Your task to perform on an android device: Open internet settings Image 0: 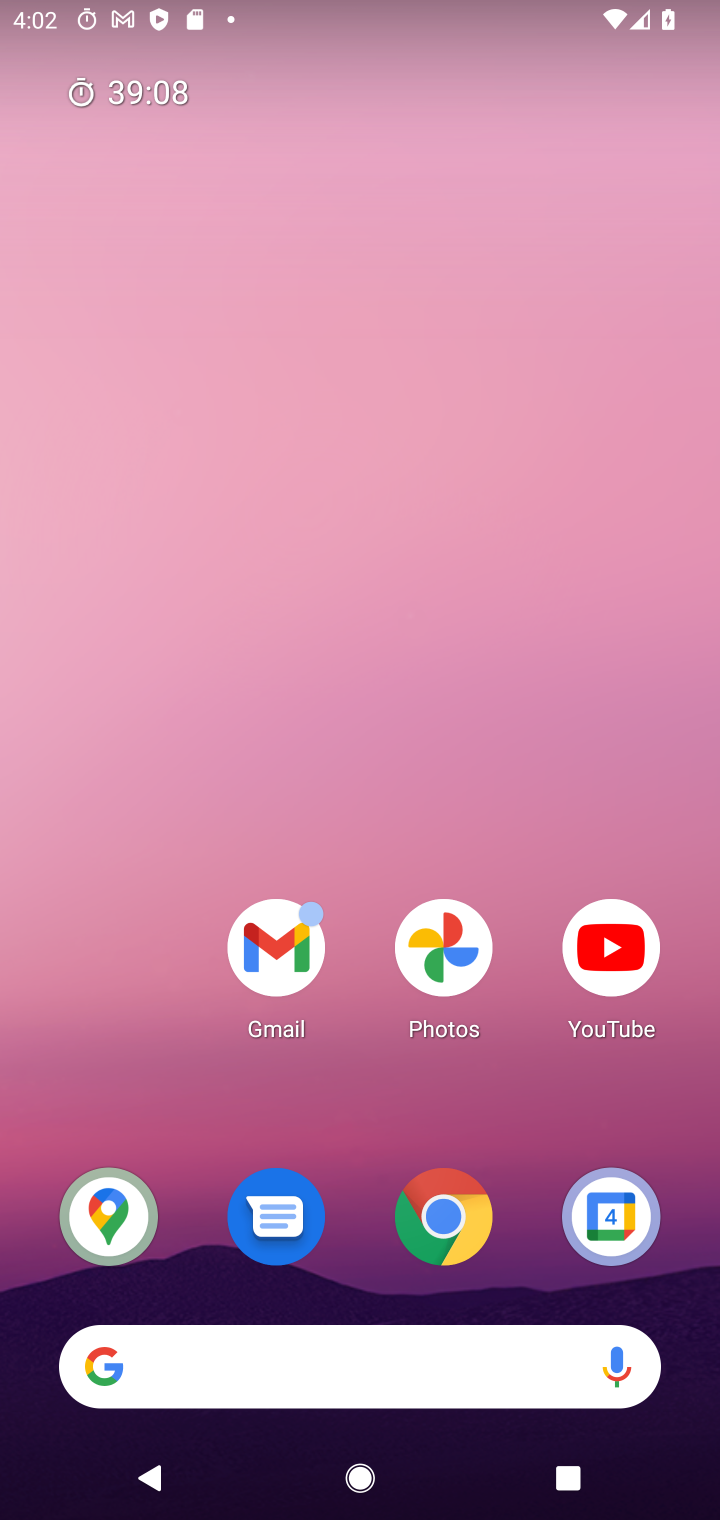
Step 0: drag from (127, 1073) to (640, 122)
Your task to perform on an android device: Open internet settings Image 1: 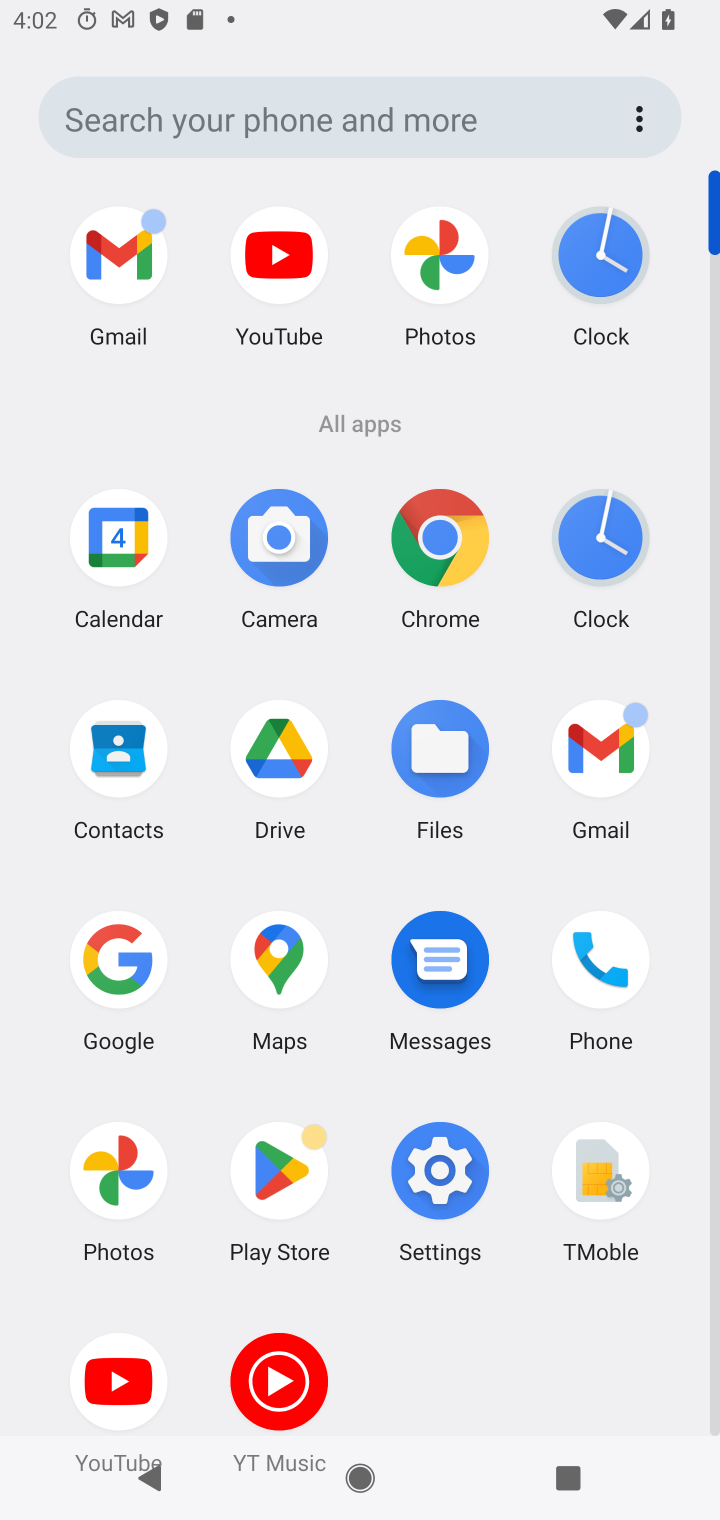
Step 1: click (432, 1161)
Your task to perform on an android device: Open internet settings Image 2: 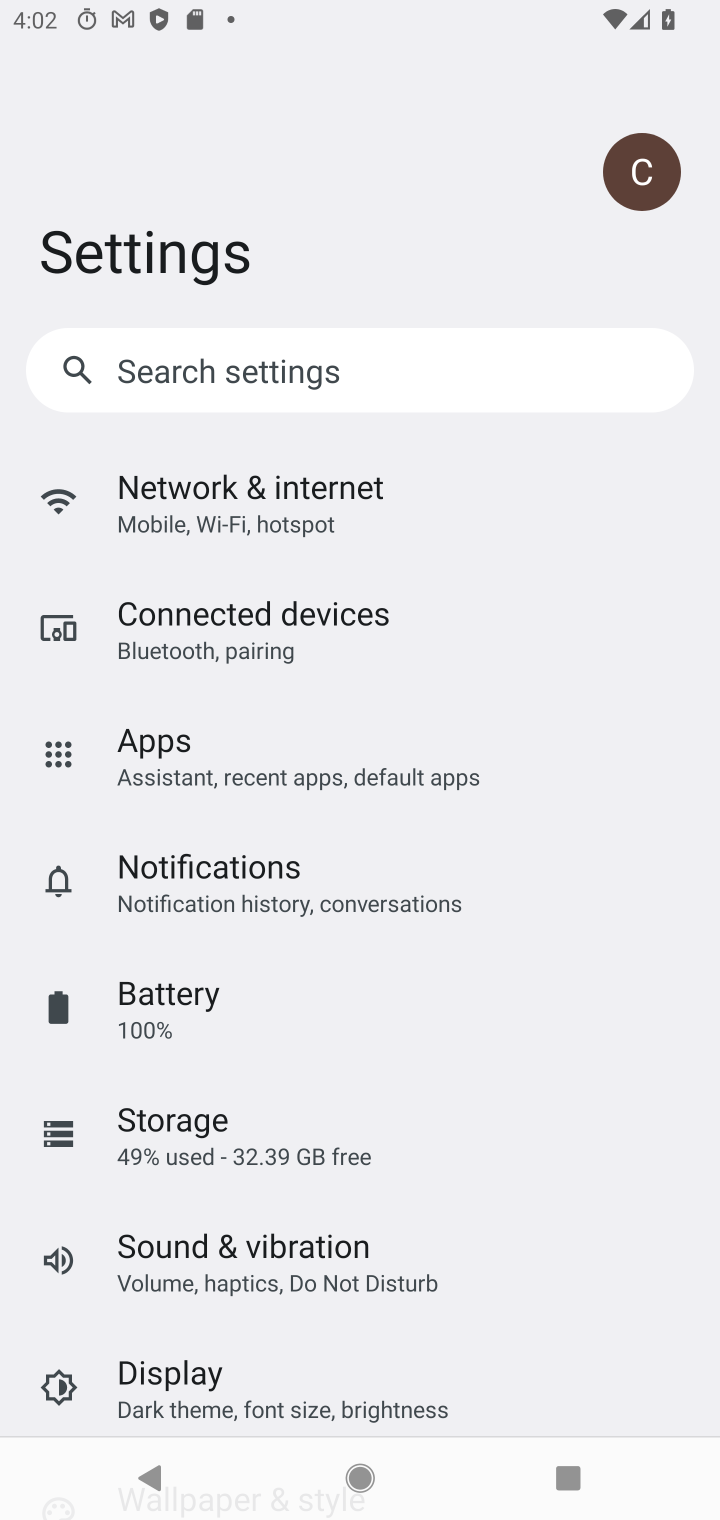
Step 2: click (493, 474)
Your task to perform on an android device: Open internet settings Image 3: 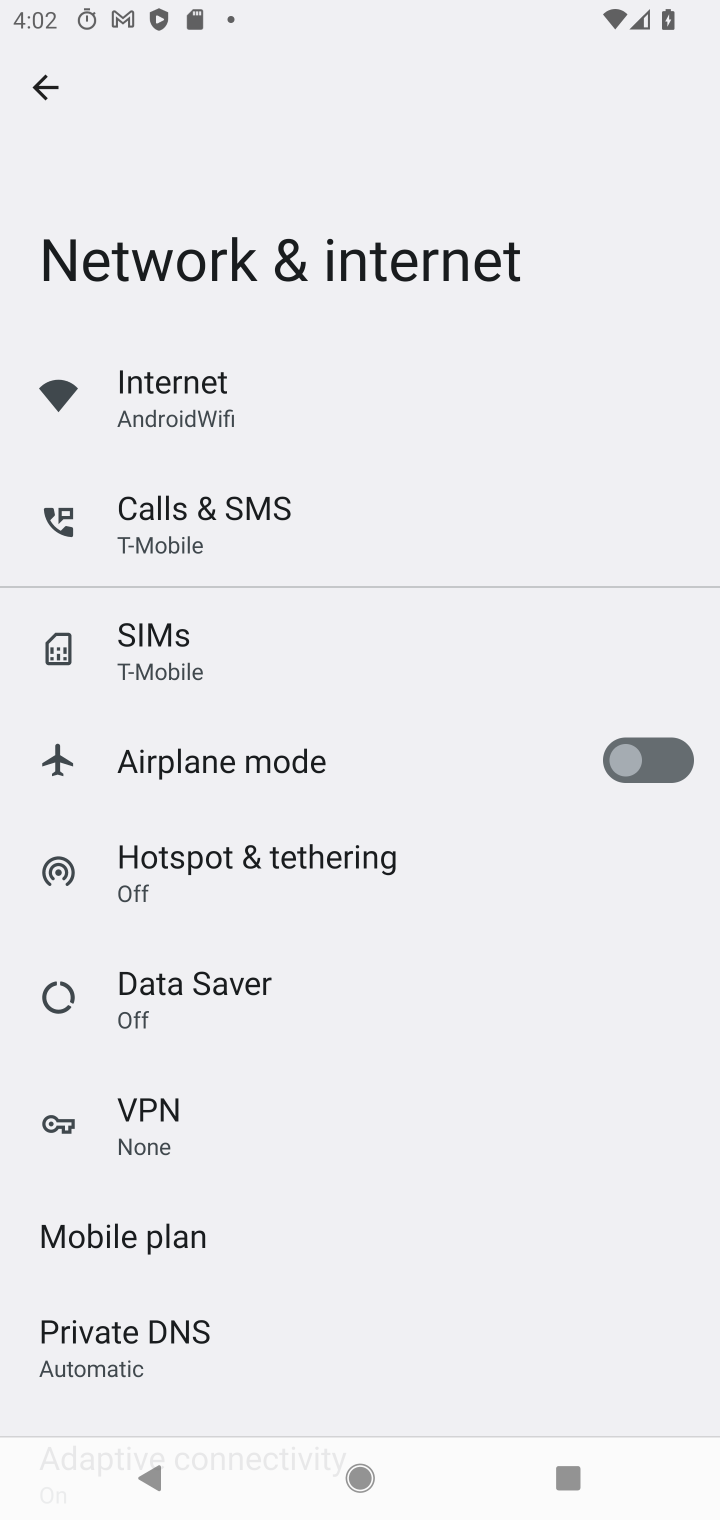
Step 3: click (135, 395)
Your task to perform on an android device: Open internet settings Image 4: 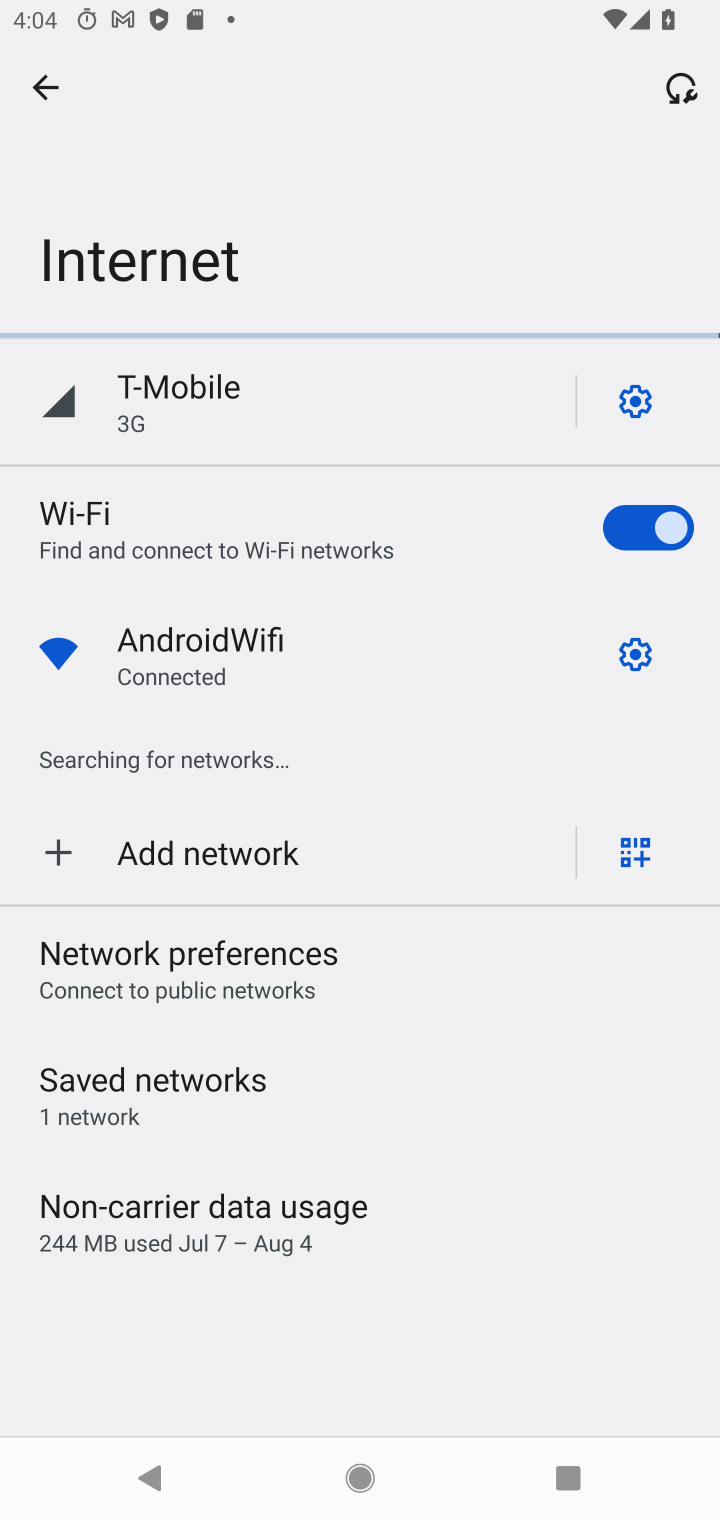
Step 4: task complete